Your task to perform on an android device: Open the calendar app, open the side menu, and click the "Day" option Image 0: 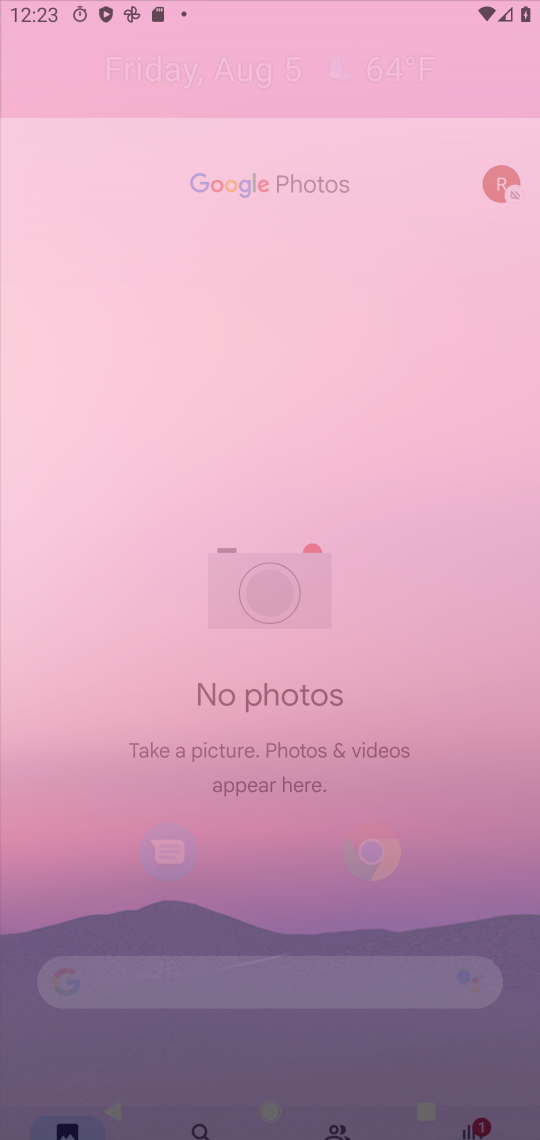
Step 0: press home button
Your task to perform on an android device: Open the calendar app, open the side menu, and click the "Day" option Image 1: 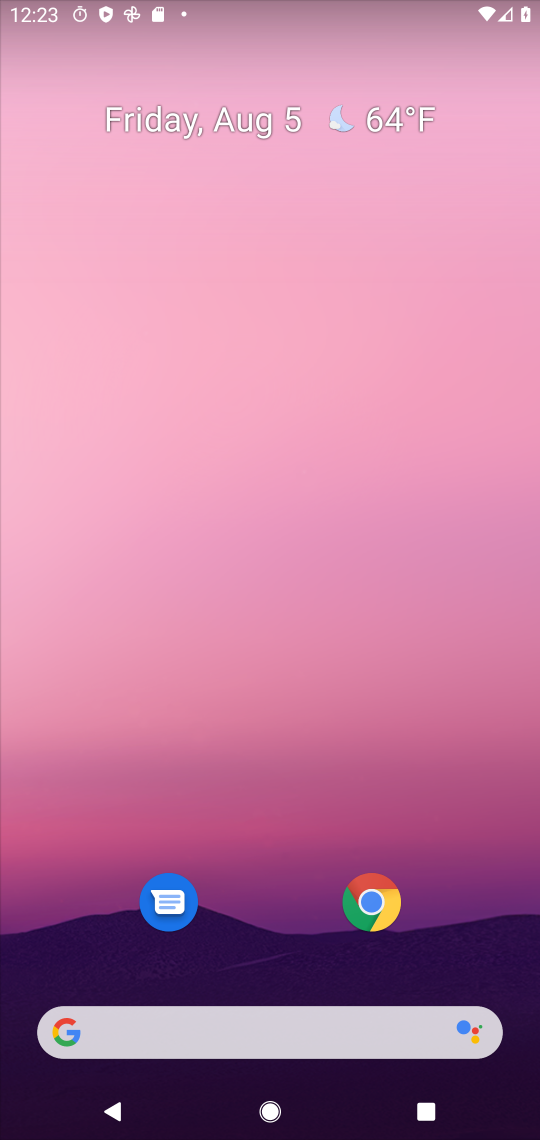
Step 1: drag from (283, 820) to (285, 460)
Your task to perform on an android device: Open the calendar app, open the side menu, and click the "Day" option Image 2: 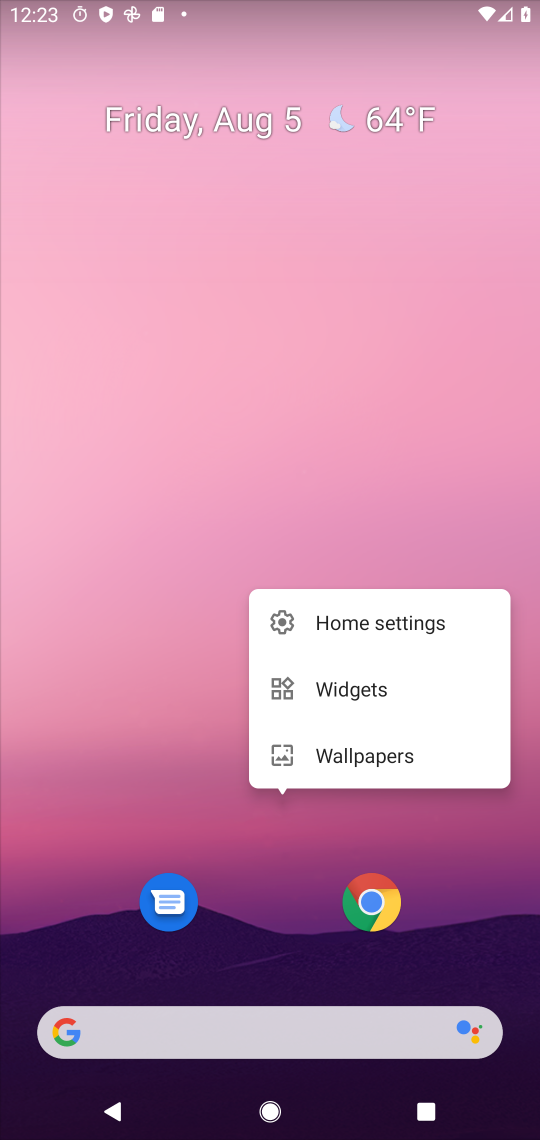
Step 2: click (161, 657)
Your task to perform on an android device: Open the calendar app, open the side menu, and click the "Day" option Image 3: 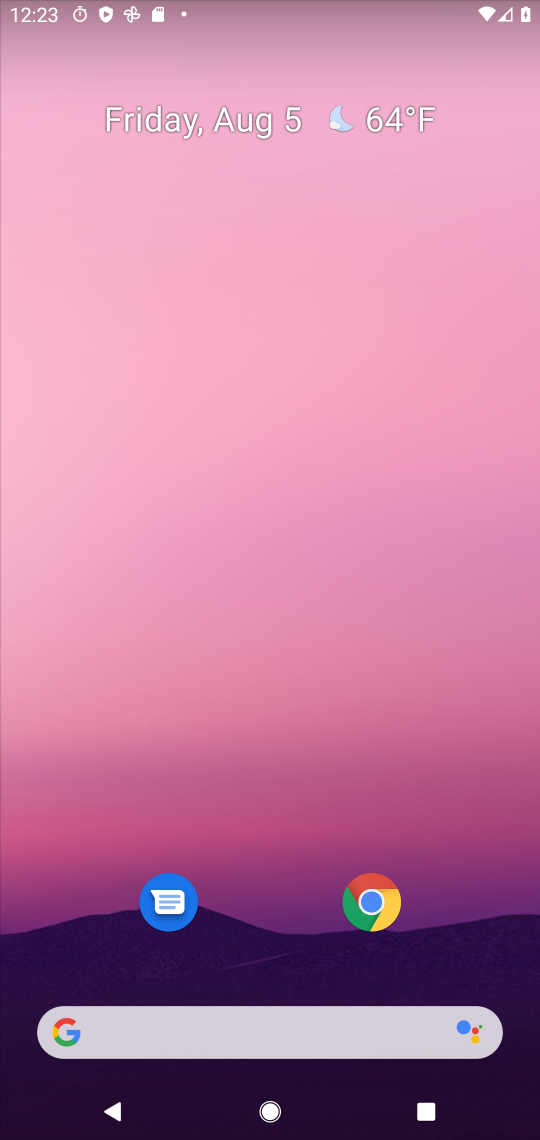
Step 3: drag from (314, 1039) to (244, 310)
Your task to perform on an android device: Open the calendar app, open the side menu, and click the "Day" option Image 4: 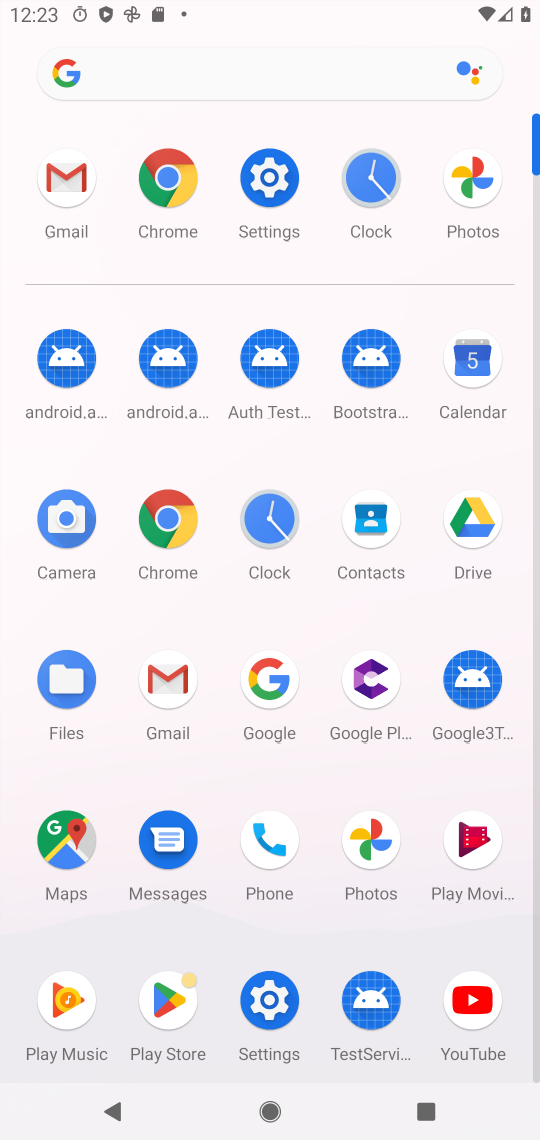
Step 4: click (469, 359)
Your task to perform on an android device: Open the calendar app, open the side menu, and click the "Day" option Image 5: 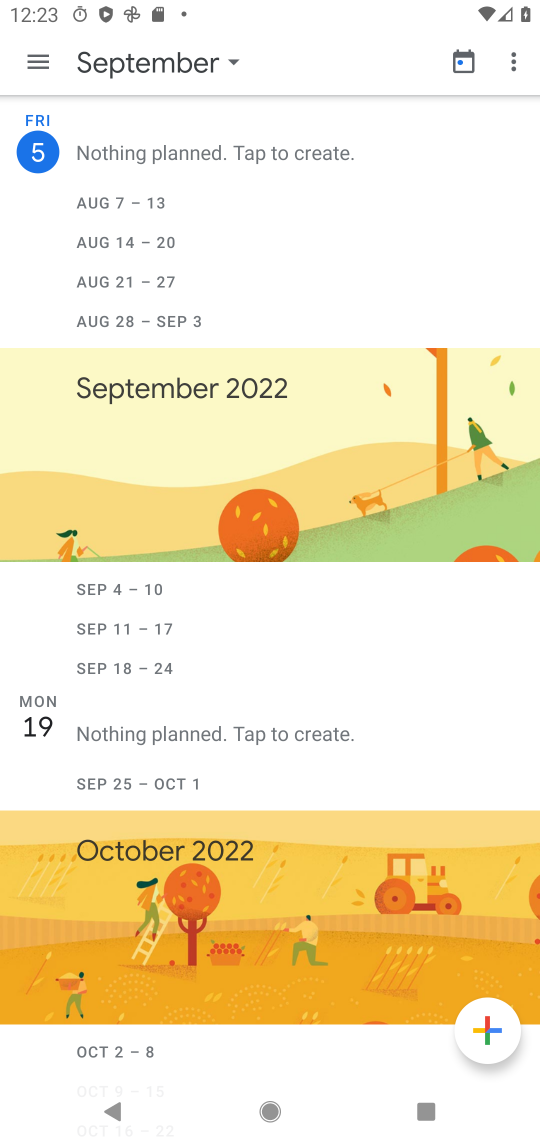
Step 5: click (31, 56)
Your task to perform on an android device: Open the calendar app, open the side menu, and click the "Day" option Image 6: 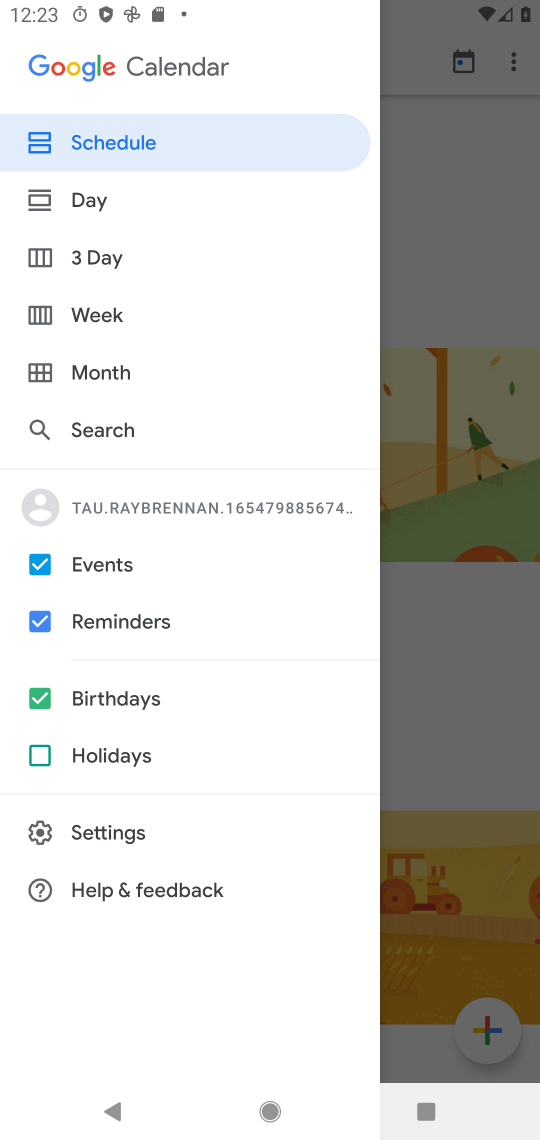
Step 6: click (111, 221)
Your task to perform on an android device: Open the calendar app, open the side menu, and click the "Day" option Image 7: 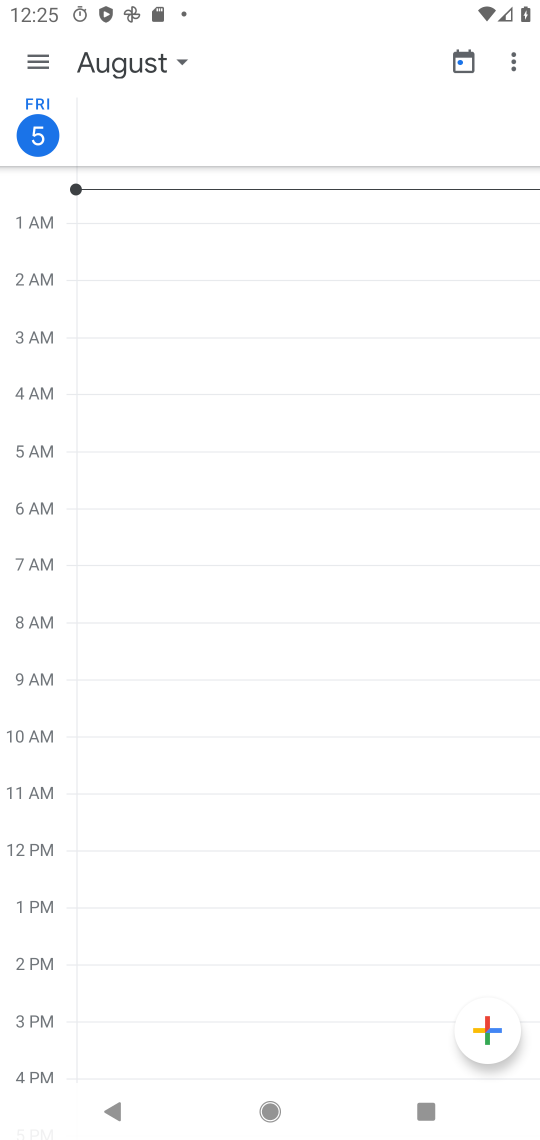
Step 7: task complete